Your task to perform on an android device: toggle javascript in the chrome app Image 0: 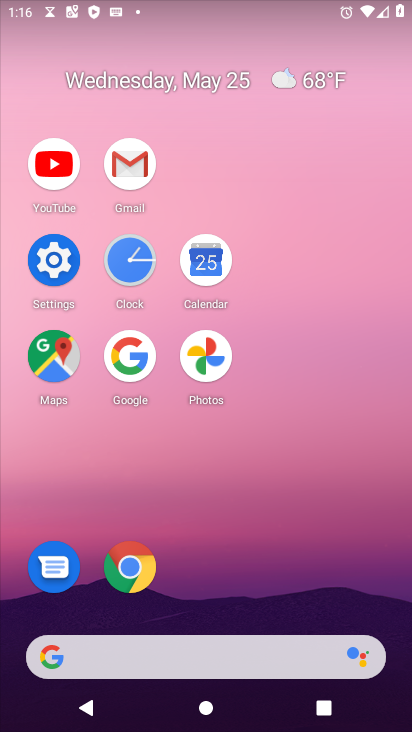
Step 0: click (132, 576)
Your task to perform on an android device: toggle javascript in the chrome app Image 1: 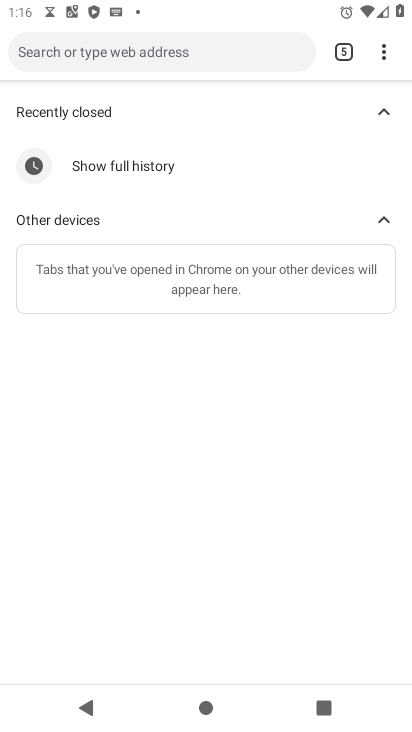
Step 1: click (384, 57)
Your task to perform on an android device: toggle javascript in the chrome app Image 2: 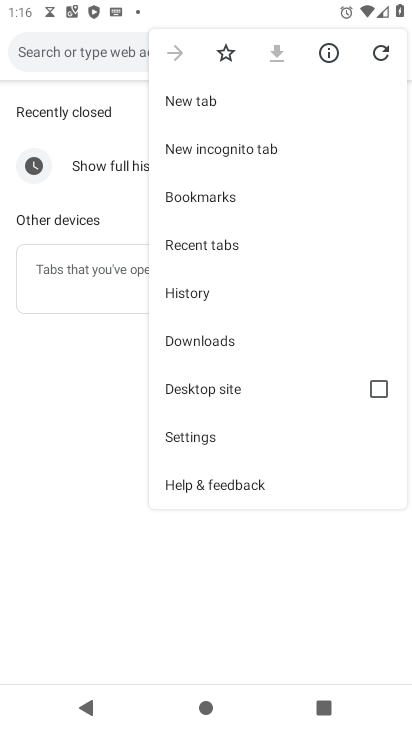
Step 2: click (246, 428)
Your task to perform on an android device: toggle javascript in the chrome app Image 3: 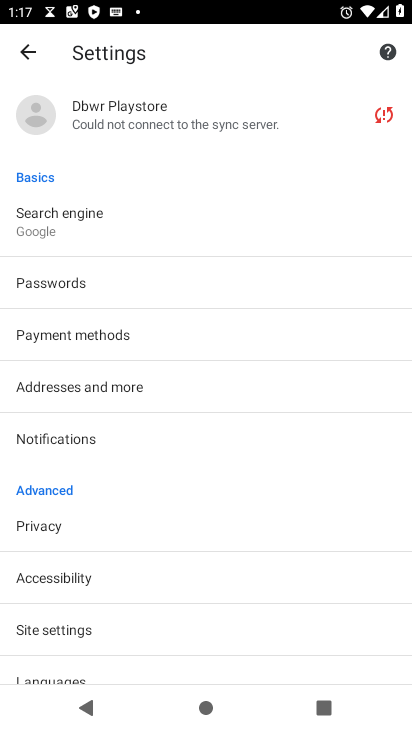
Step 3: click (159, 625)
Your task to perform on an android device: toggle javascript in the chrome app Image 4: 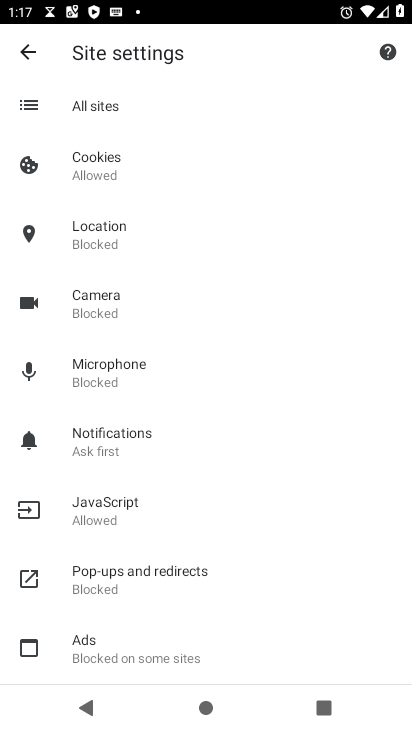
Step 4: click (199, 491)
Your task to perform on an android device: toggle javascript in the chrome app Image 5: 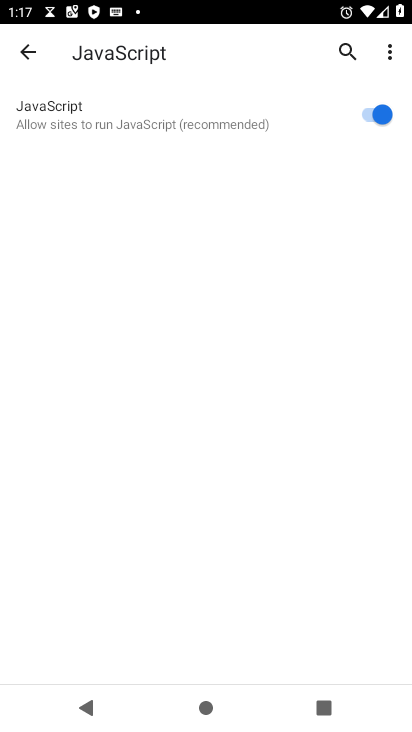
Step 5: click (380, 122)
Your task to perform on an android device: toggle javascript in the chrome app Image 6: 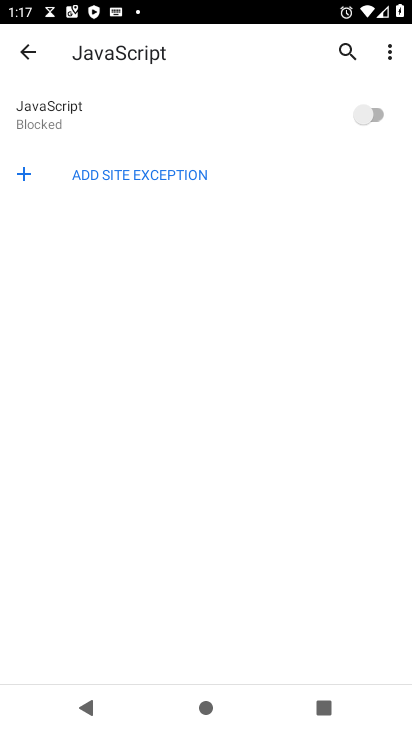
Step 6: task complete